Your task to perform on an android device: Go to Yahoo.com Image 0: 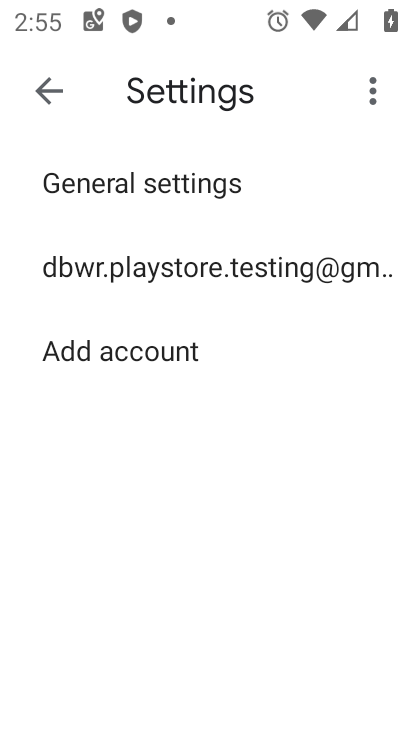
Step 0: press home button
Your task to perform on an android device: Go to Yahoo.com Image 1: 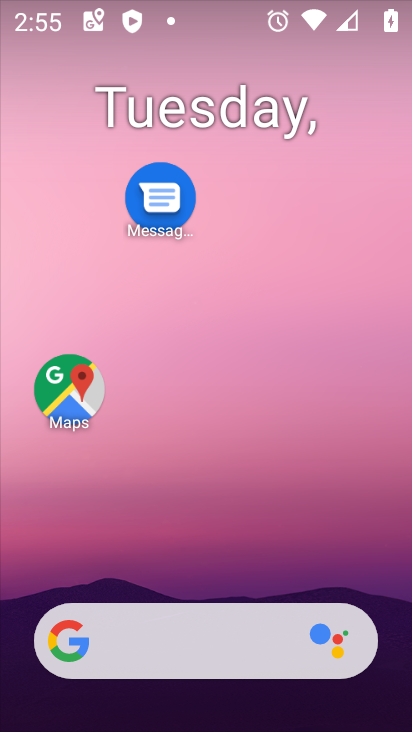
Step 1: drag from (199, 563) to (273, 233)
Your task to perform on an android device: Go to Yahoo.com Image 2: 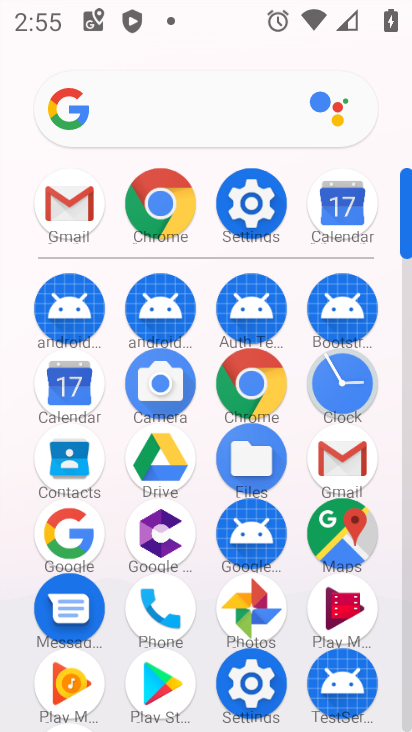
Step 2: click (175, 221)
Your task to perform on an android device: Go to Yahoo.com Image 3: 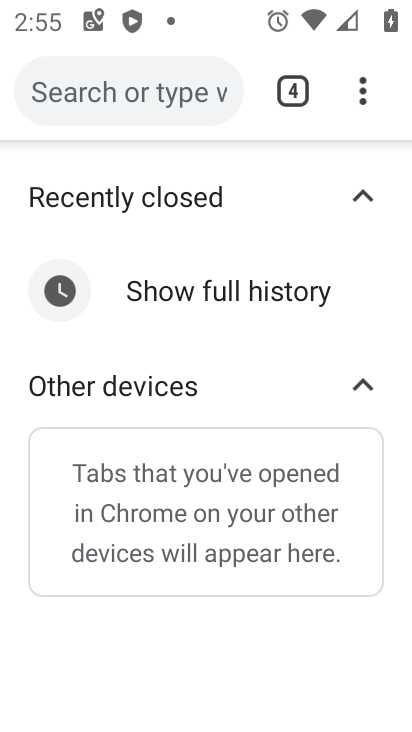
Step 3: click (287, 93)
Your task to perform on an android device: Go to Yahoo.com Image 4: 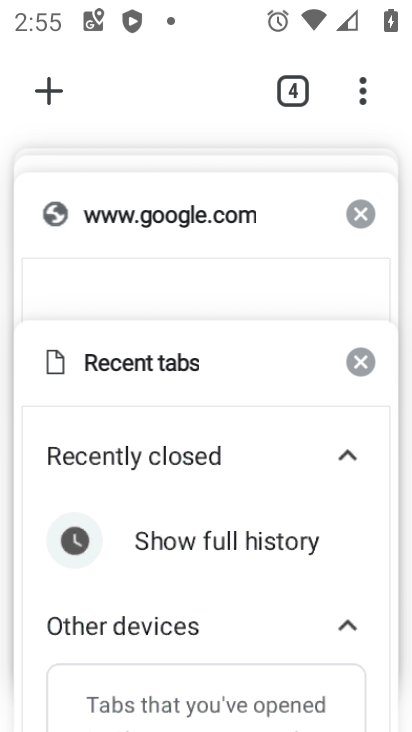
Step 4: click (45, 98)
Your task to perform on an android device: Go to Yahoo.com Image 5: 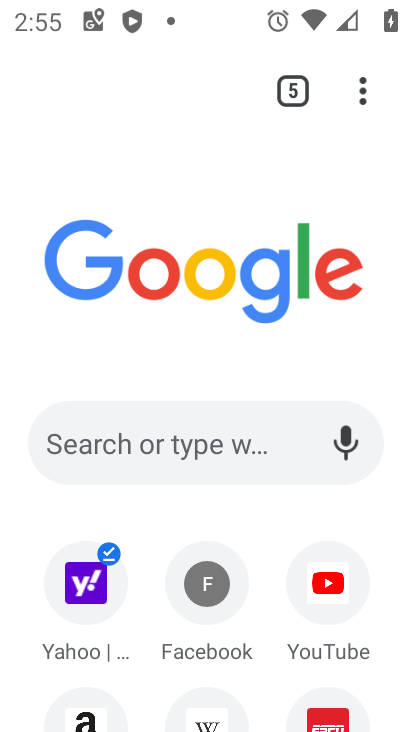
Step 5: click (79, 623)
Your task to perform on an android device: Go to Yahoo.com Image 6: 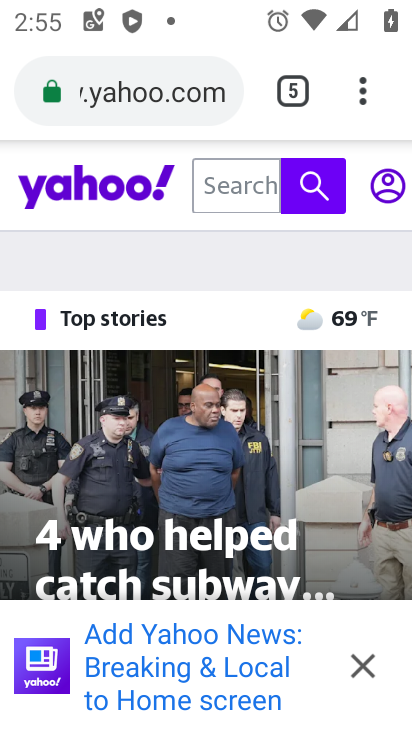
Step 6: task complete